Your task to perform on an android device: turn on data saver in the chrome app Image 0: 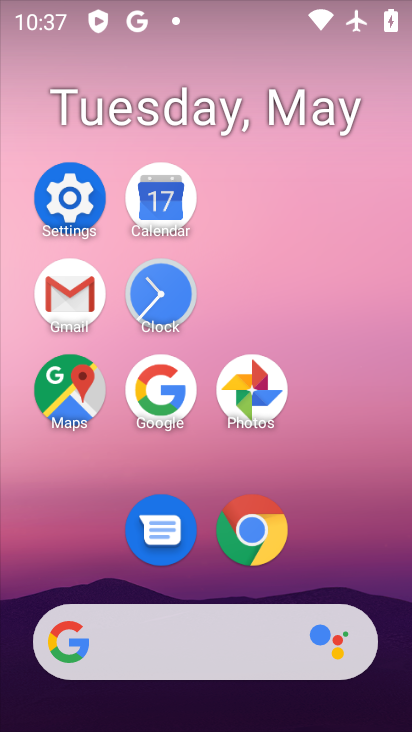
Step 0: click (248, 509)
Your task to perform on an android device: turn on data saver in the chrome app Image 1: 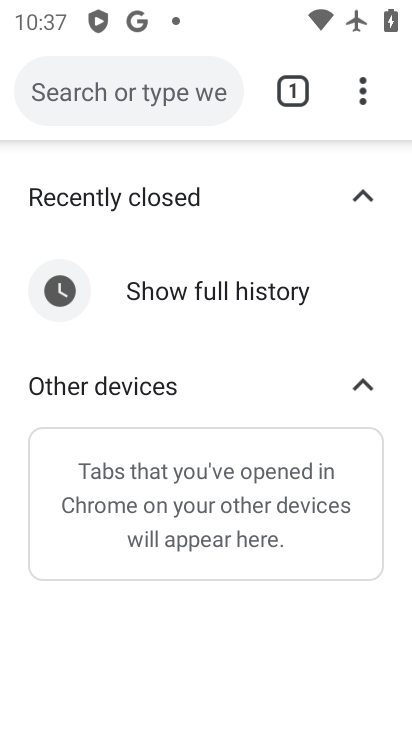
Step 1: click (375, 84)
Your task to perform on an android device: turn on data saver in the chrome app Image 2: 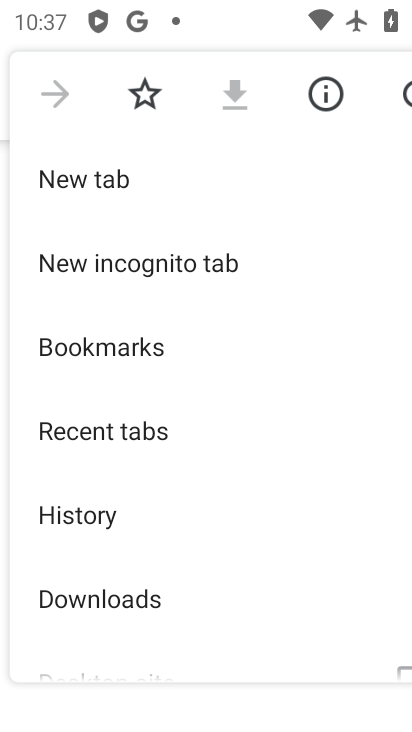
Step 2: drag from (219, 537) to (231, 148)
Your task to perform on an android device: turn on data saver in the chrome app Image 3: 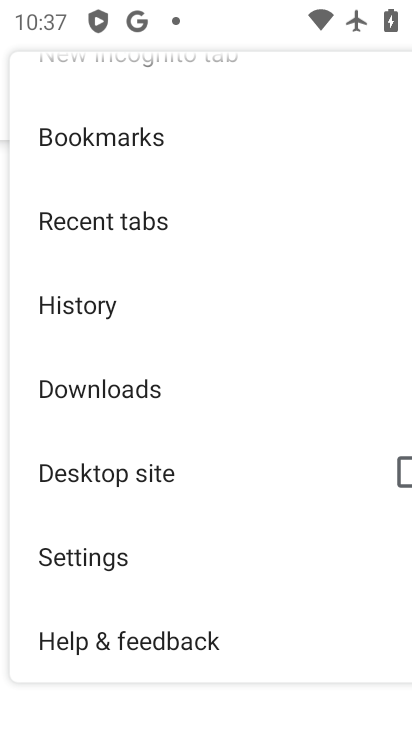
Step 3: click (140, 533)
Your task to perform on an android device: turn on data saver in the chrome app Image 4: 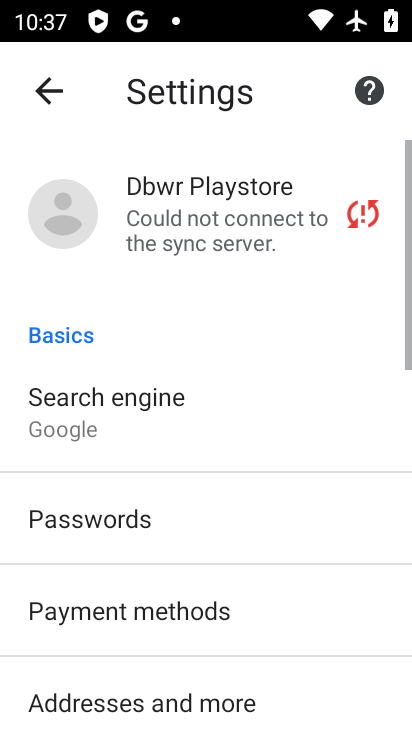
Step 4: drag from (140, 533) to (175, 104)
Your task to perform on an android device: turn on data saver in the chrome app Image 5: 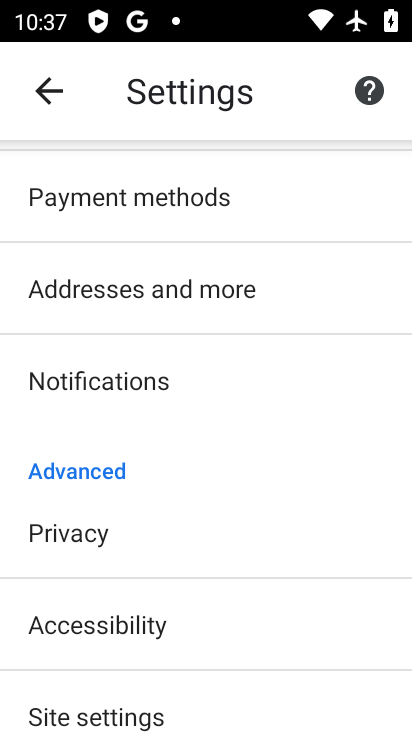
Step 5: drag from (141, 541) to (194, 191)
Your task to perform on an android device: turn on data saver in the chrome app Image 6: 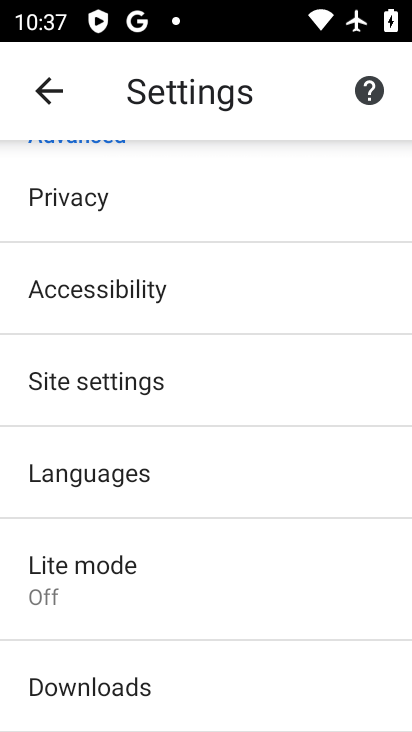
Step 6: drag from (154, 528) to (194, 238)
Your task to perform on an android device: turn on data saver in the chrome app Image 7: 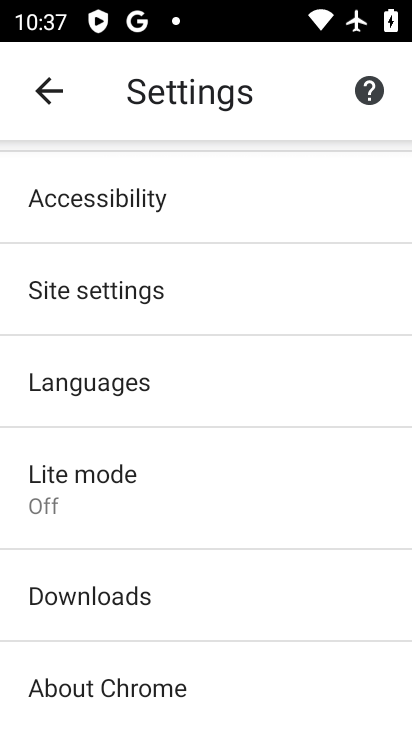
Step 7: click (214, 481)
Your task to perform on an android device: turn on data saver in the chrome app Image 8: 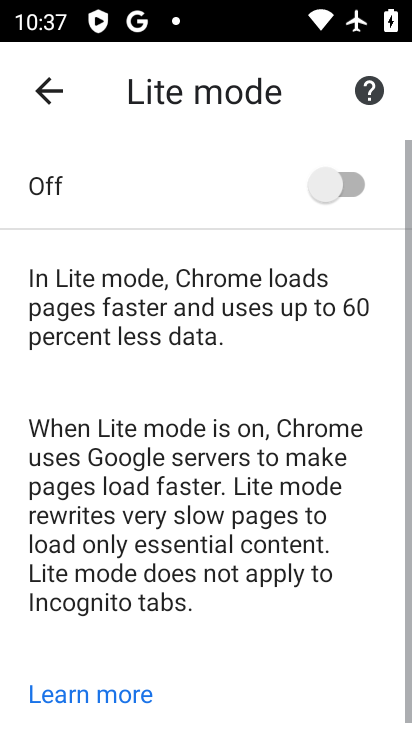
Step 8: click (353, 186)
Your task to perform on an android device: turn on data saver in the chrome app Image 9: 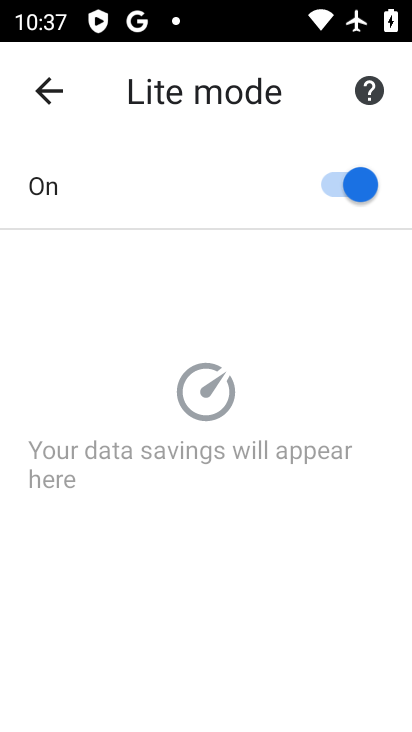
Step 9: task complete